Your task to perform on an android device: find which apps use the phone's location Image 0: 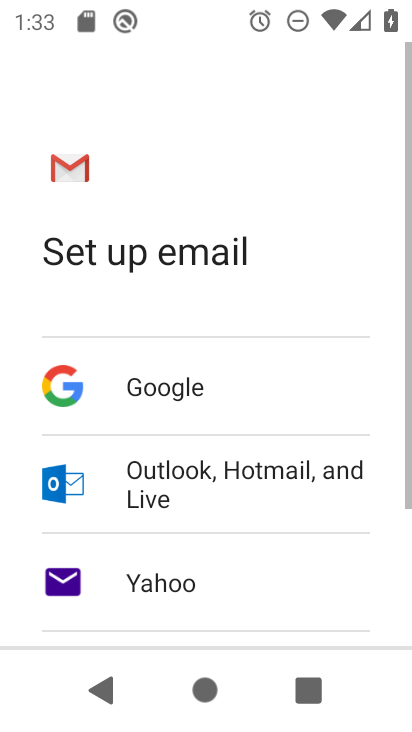
Step 0: press home button
Your task to perform on an android device: find which apps use the phone's location Image 1: 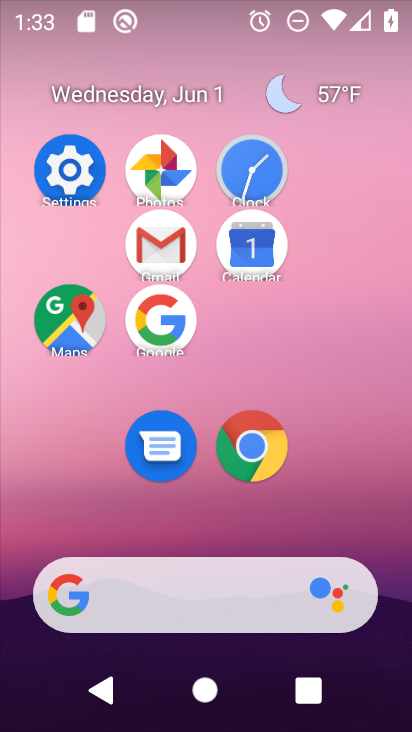
Step 1: click (80, 197)
Your task to perform on an android device: find which apps use the phone's location Image 2: 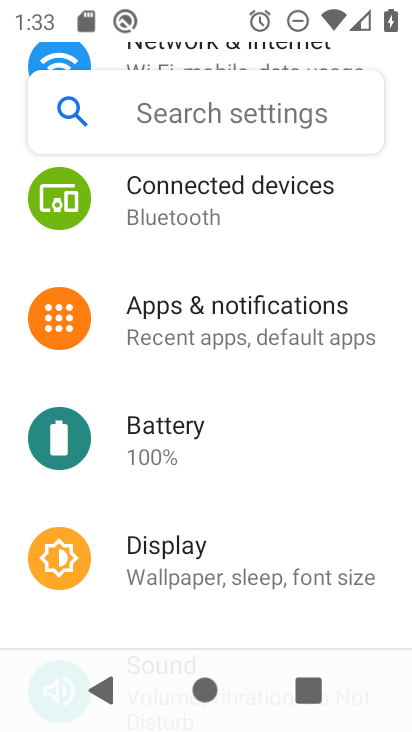
Step 2: drag from (281, 587) to (279, 162)
Your task to perform on an android device: find which apps use the phone's location Image 3: 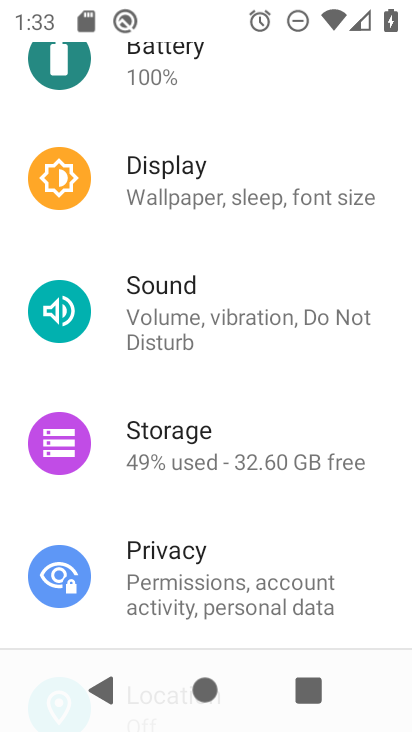
Step 3: drag from (220, 540) to (253, 124)
Your task to perform on an android device: find which apps use the phone's location Image 4: 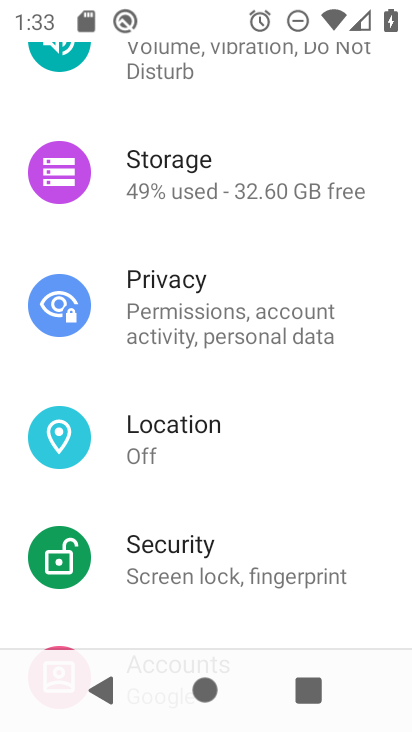
Step 4: click (202, 423)
Your task to perform on an android device: find which apps use the phone's location Image 5: 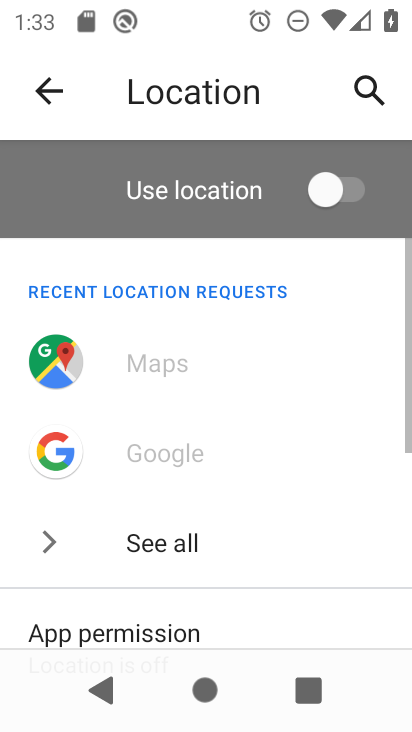
Step 5: task complete